Your task to perform on an android device: Go to battery settings Image 0: 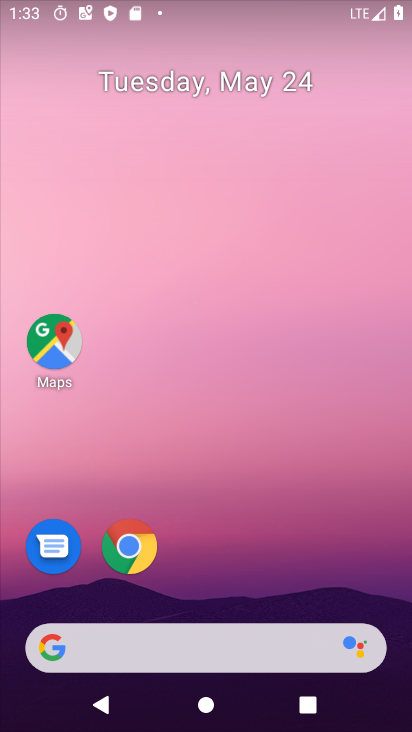
Step 0: drag from (197, 552) to (248, 130)
Your task to perform on an android device: Go to battery settings Image 1: 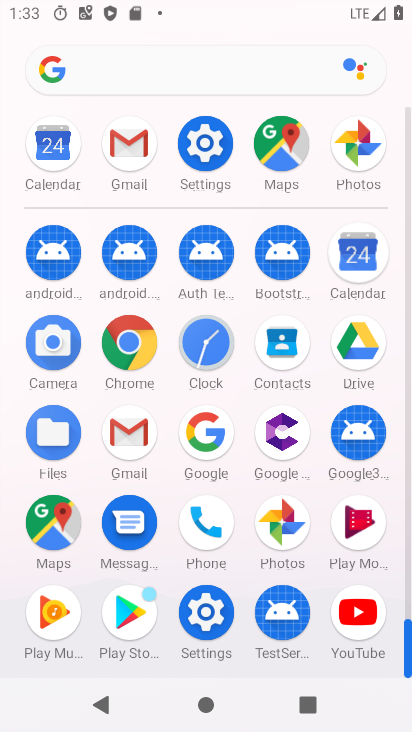
Step 1: click (197, 132)
Your task to perform on an android device: Go to battery settings Image 2: 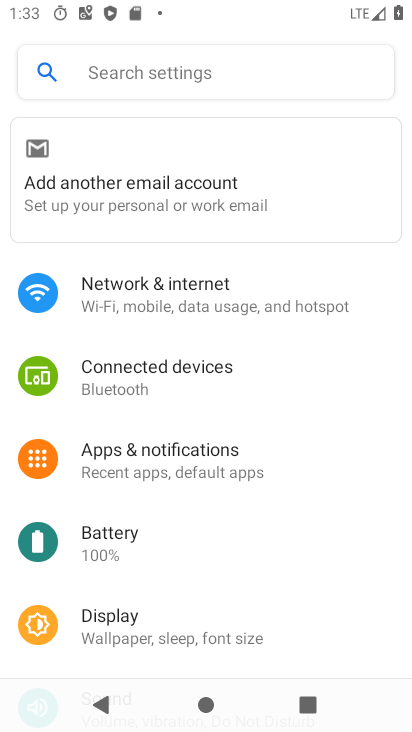
Step 2: drag from (157, 597) to (187, 371)
Your task to perform on an android device: Go to battery settings Image 3: 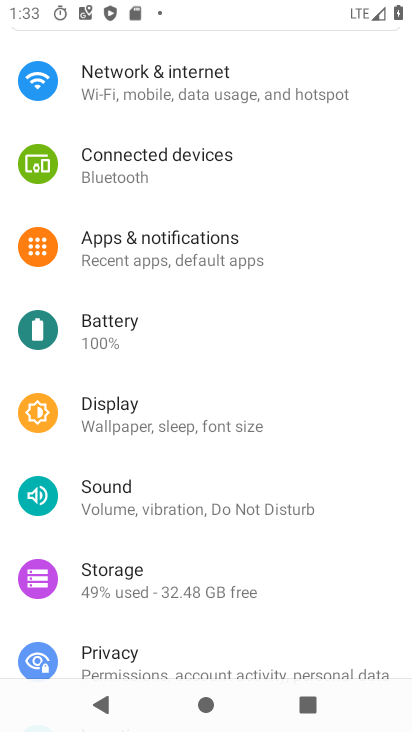
Step 3: click (159, 313)
Your task to perform on an android device: Go to battery settings Image 4: 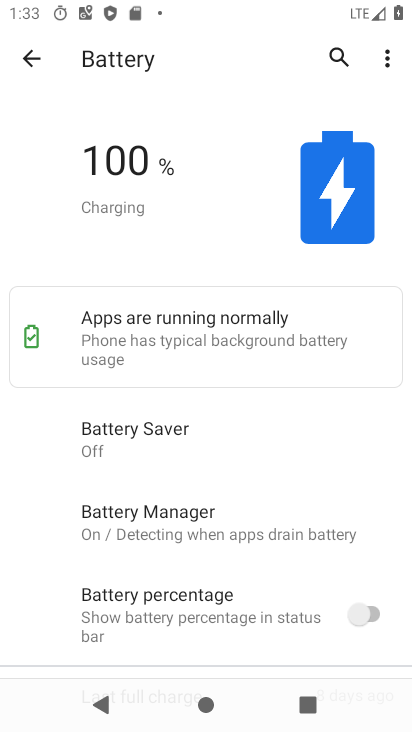
Step 4: task complete